Your task to perform on an android device: Go to Reddit.com Image 0: 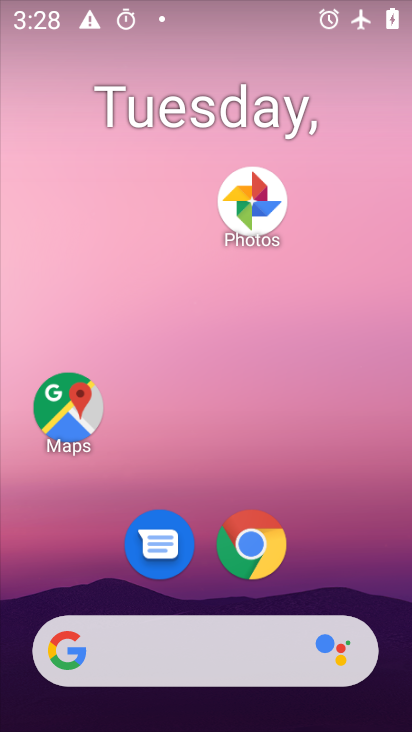
Step 0: drag from (322, 299) to (326, 85)
Your task to perform on an android device: Go to Reddit.com Image 1: 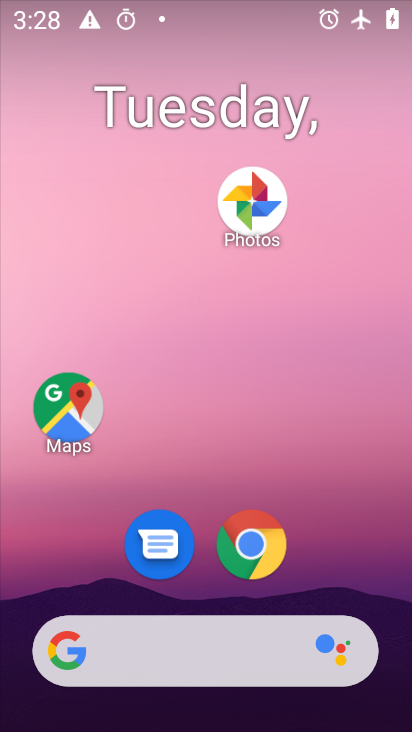
Step 1: drag from (376, 449) to (219, 0)
Your task to perform on an android device: Go to Reddit.com Image 2: 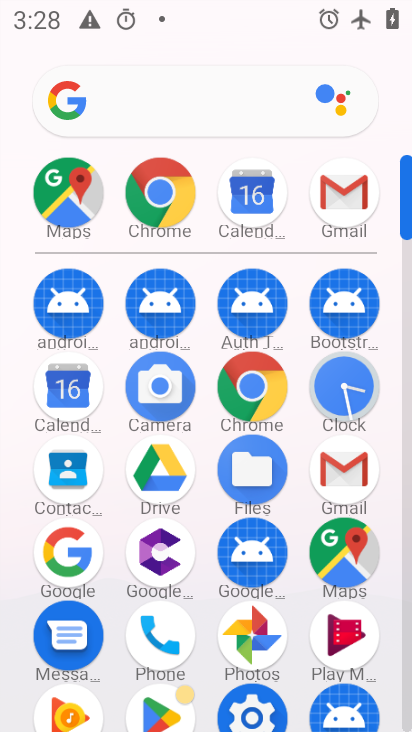
Step 2: click (250, 388)
Your task to perform on an android device: Go to Reddit.com Image 3: 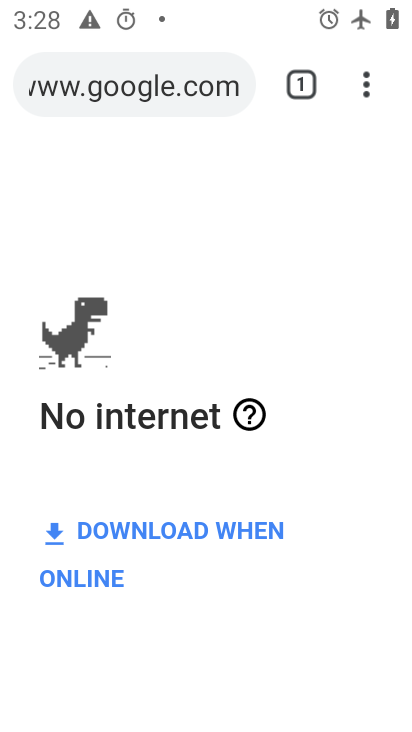
Step 3: click (162, 70)
Your task to perform on an android device: Go to Reddit.com Image 4: 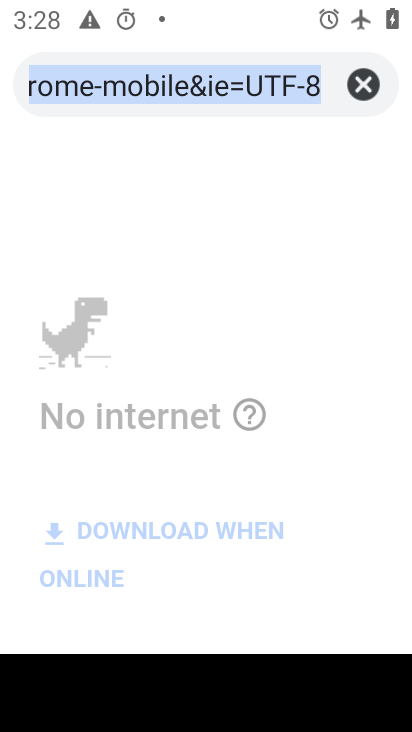
Step 4: type "reddit.com"
Your task to perform on an android device: Go to Reddit.com Image 5: 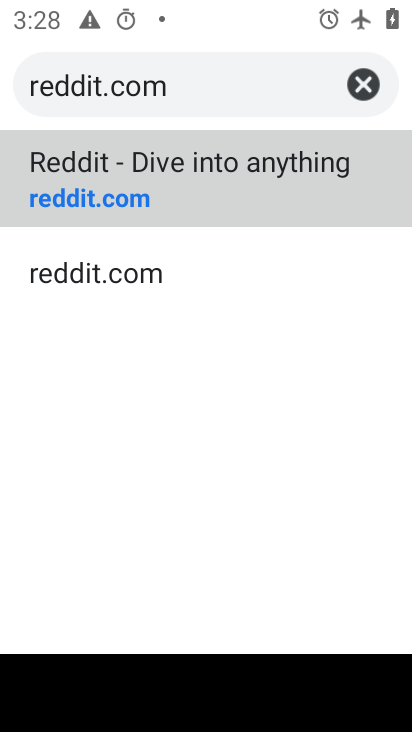
Step 5: click (94, 190)
Your task to perform on an android device: Go to Reddit.com Image 6: 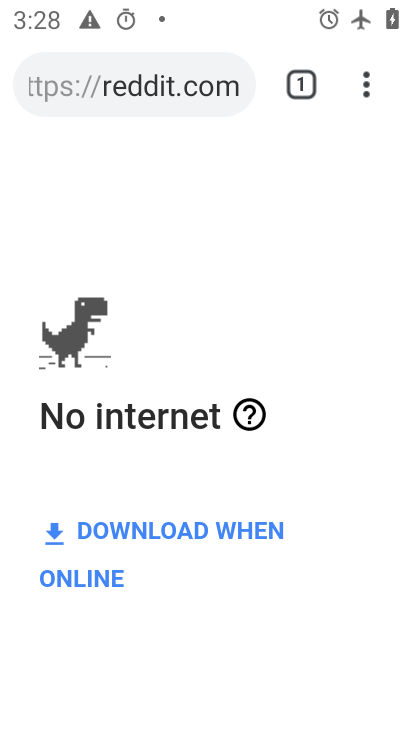
Step 6: task complete